Your task to perform on an android device: Go to privacy settings Image 0: 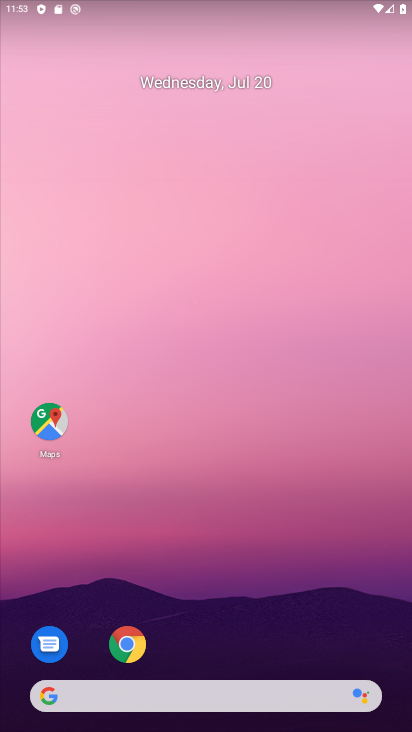
Step 0: drag from (385, 655) to (341, 77)
Your task to perform on an android device: Go to privacy settings Image 1: 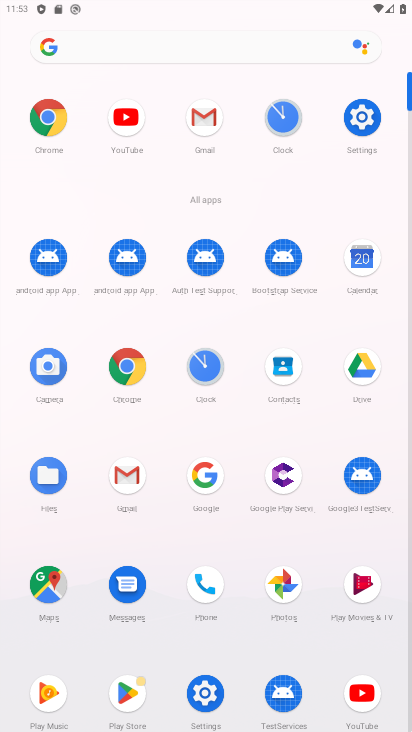
Step 1: click (205, 694)
Your task to perform on an android device: Go to privacy settings Image 2: 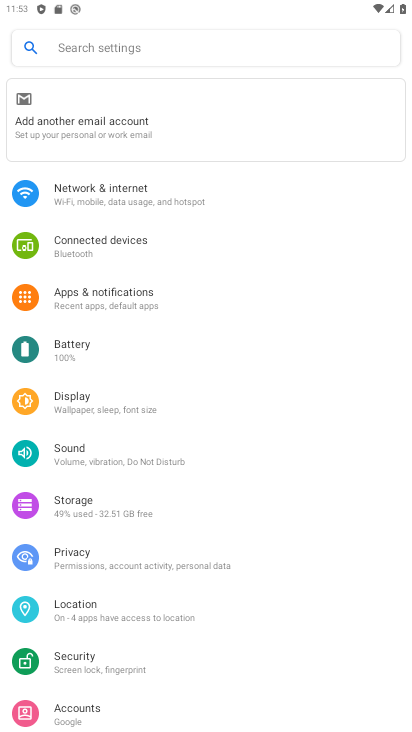
Step 2: click (66, 550)
Your task to perform on an android device: Go to privacy settings Image 3: 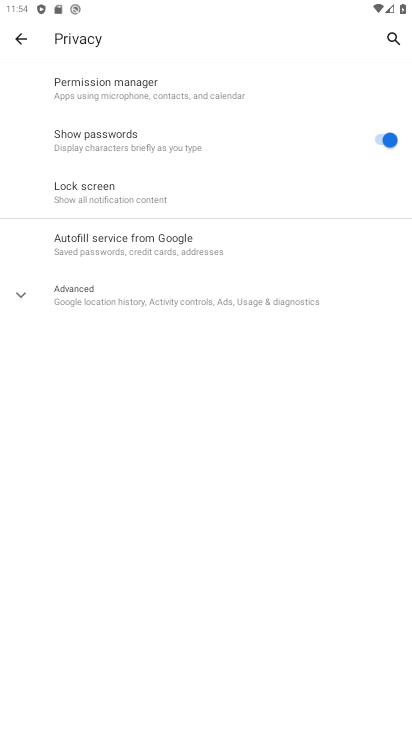
Step 3: click (19, 294)
Your task to perform on an android device: Go to privacy settings Image 4: 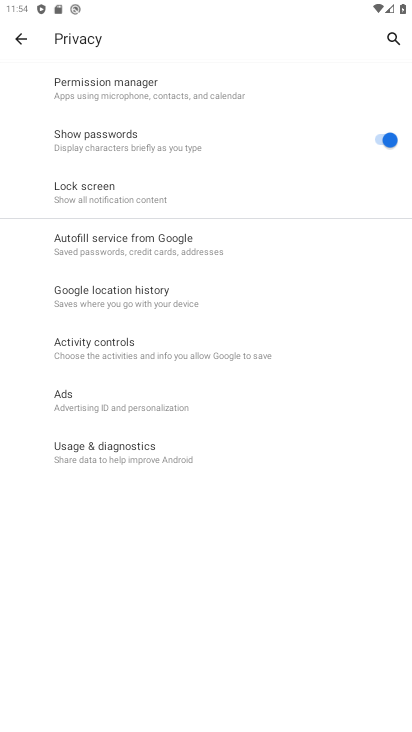
Step 4: task complete